Your task to perform on an android device: Add "razer deathadder" to the cart on target.com Image 0: 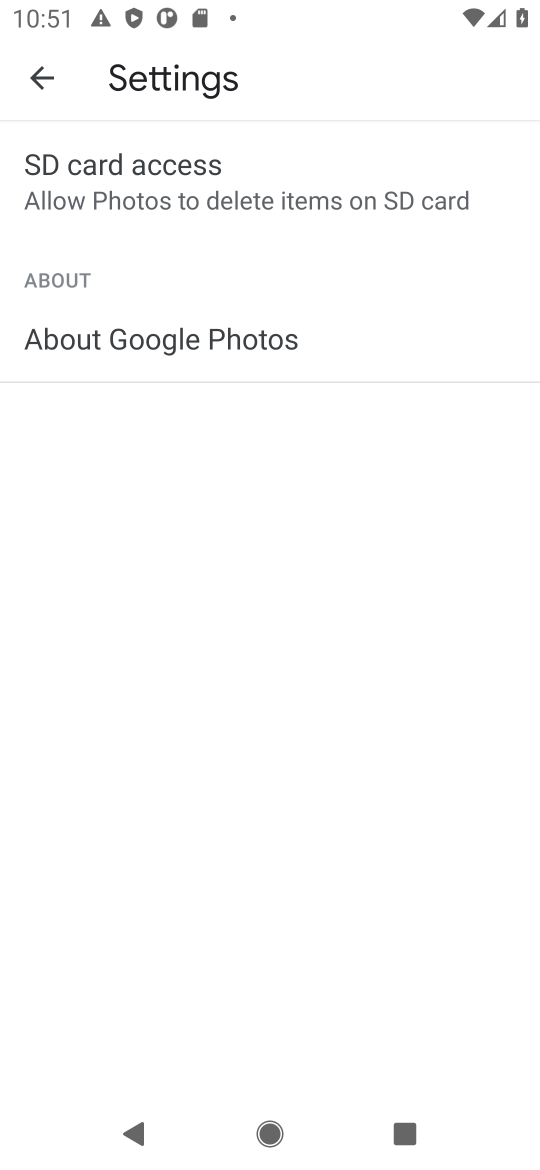
Step 0: press home button
Your task to perform on an android device: Add "razer deathadder" to the cart on target.com Image 1: 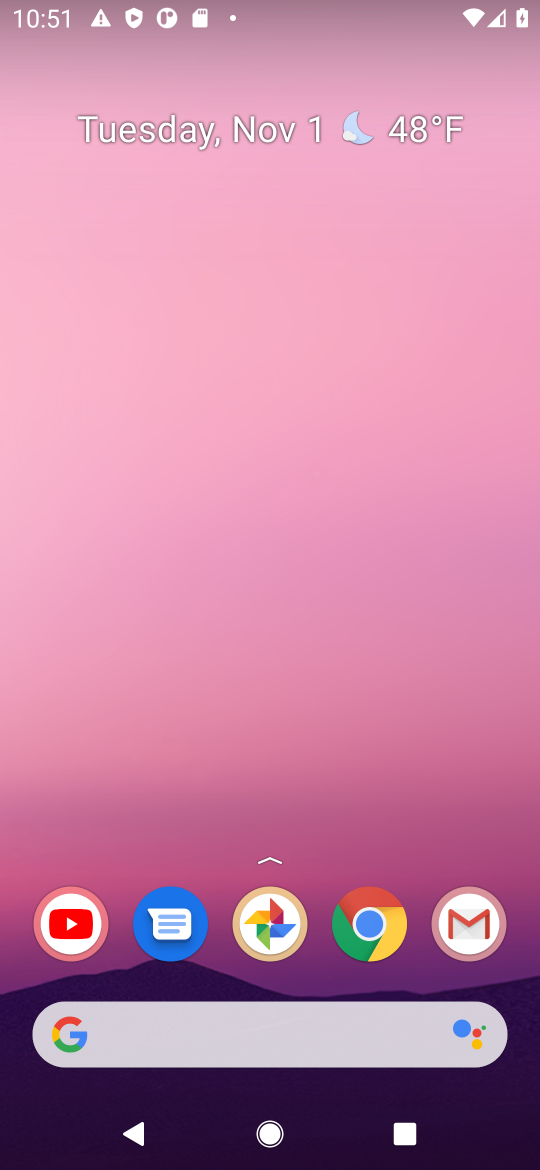
Step 1: click (367, 927)
Your task to perform on an android device: Add "razer deathadder" to the cart on target.com Image 2: 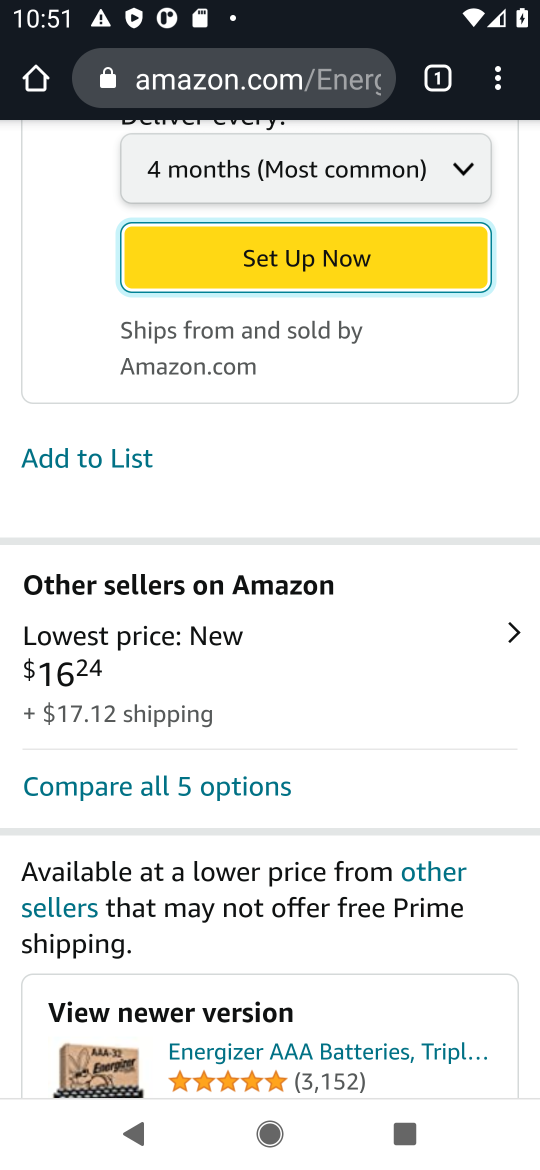
Step 2: click (221, 86)
Your task to perform on an android device: Add "razer deathadder" to the cart on target.com Image 3: 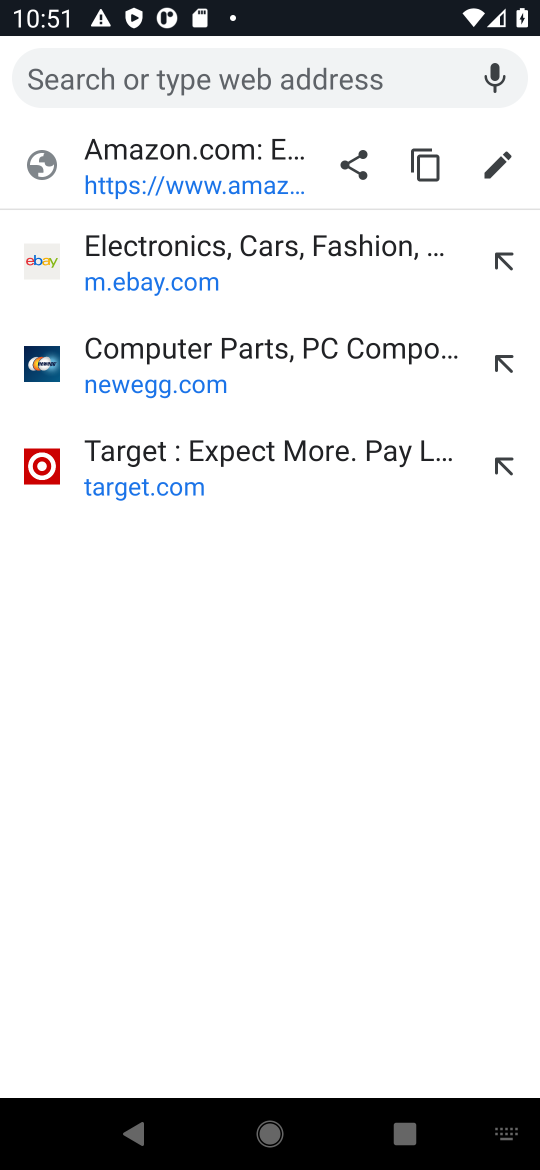
Step 3: type "target.com"
Your task to perform on an android device: Add "razer deathadder" to the cart on target.com Image 4: 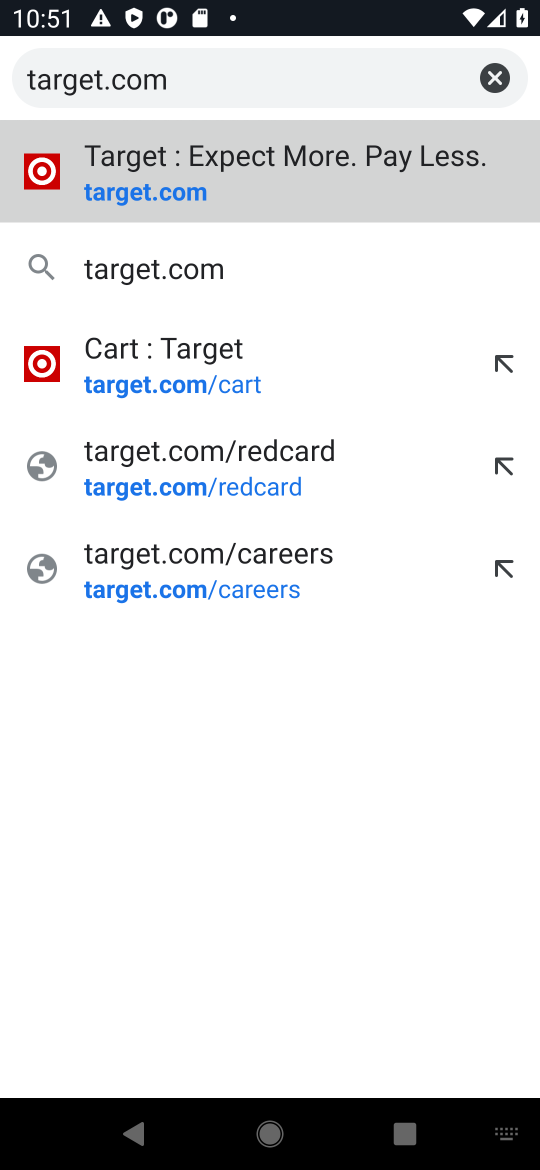
Step 4: click (259, 203)
Your task to perform on an android device: Add "razer deathadder" to the cart on target.com Image 5: 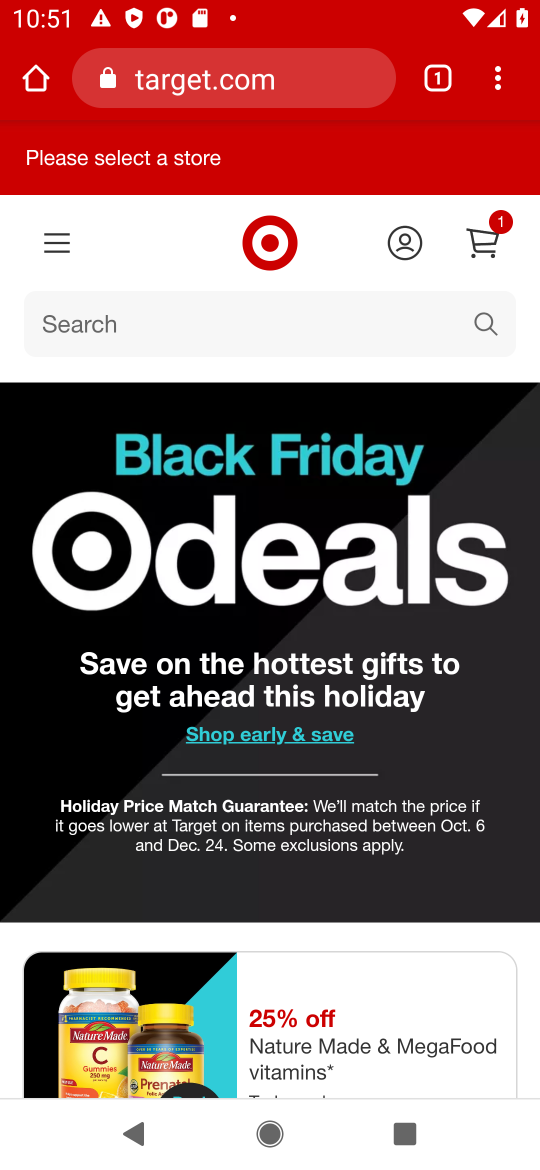
Step 5: click (205, 324)
Your task to perform on an android device: Add "razer deathadder" to the cart on target.com Image 6: 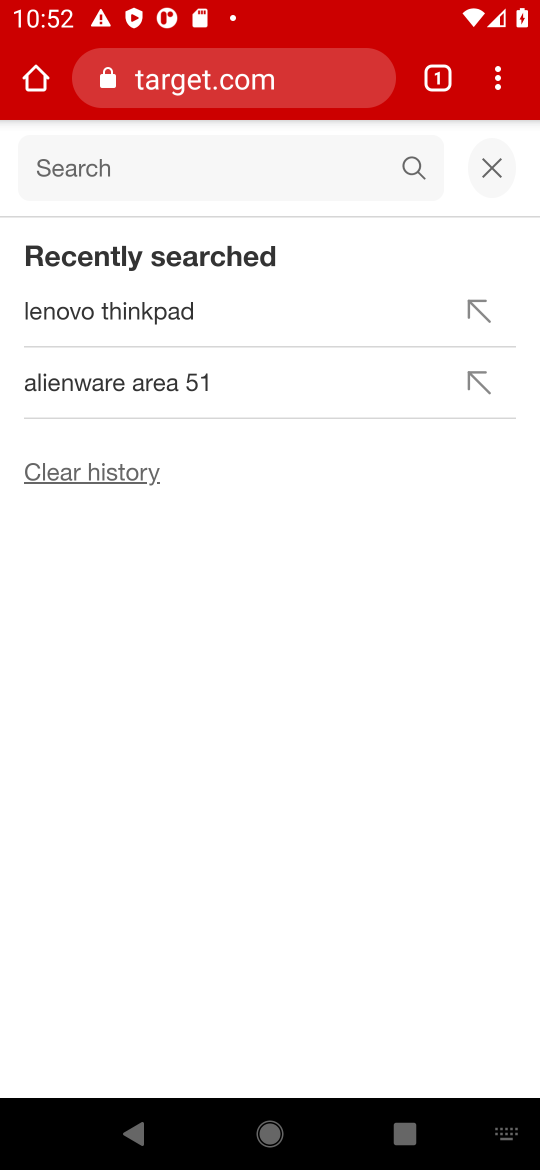
Step 6: type "razer deathadder"
Your task to perform on an android device: Add "razer deathadder" to the cart on target.com Image 7: 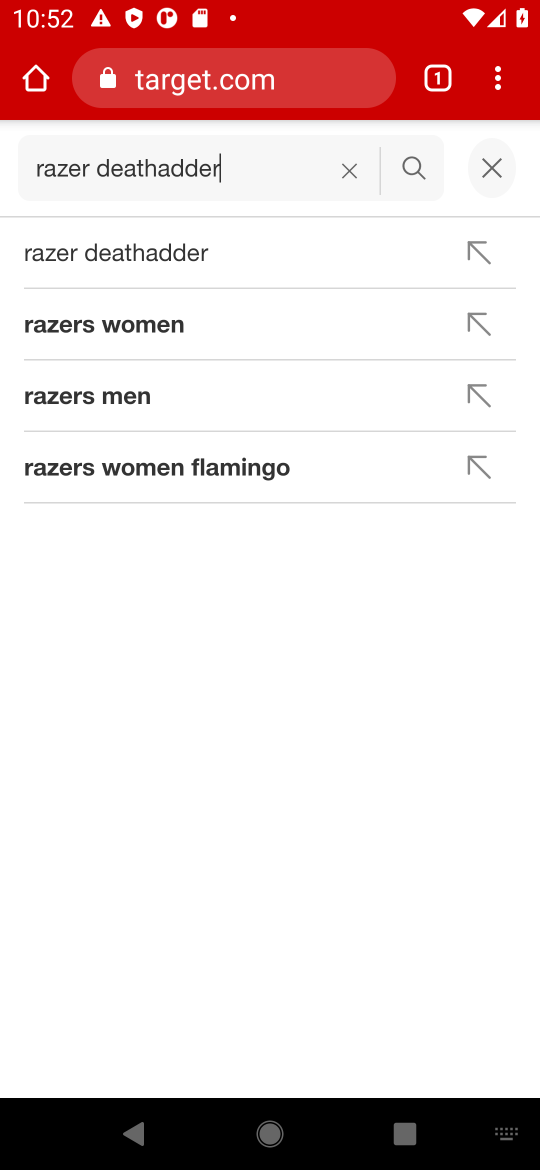
Step 7: type "]"
Your task to perform on an android device: Add "razer deathadder" to the cart on target.com Image 8: 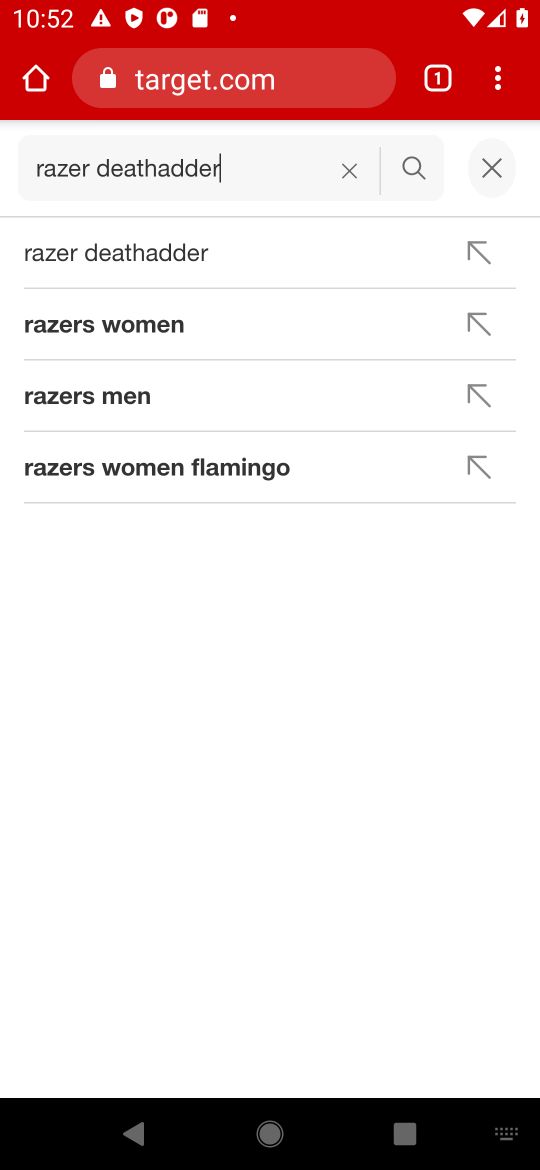
Step 8: click (419, 168)
Your task to perform on an android device: Add "razer deathadder" to the cart on target.com Image 9: 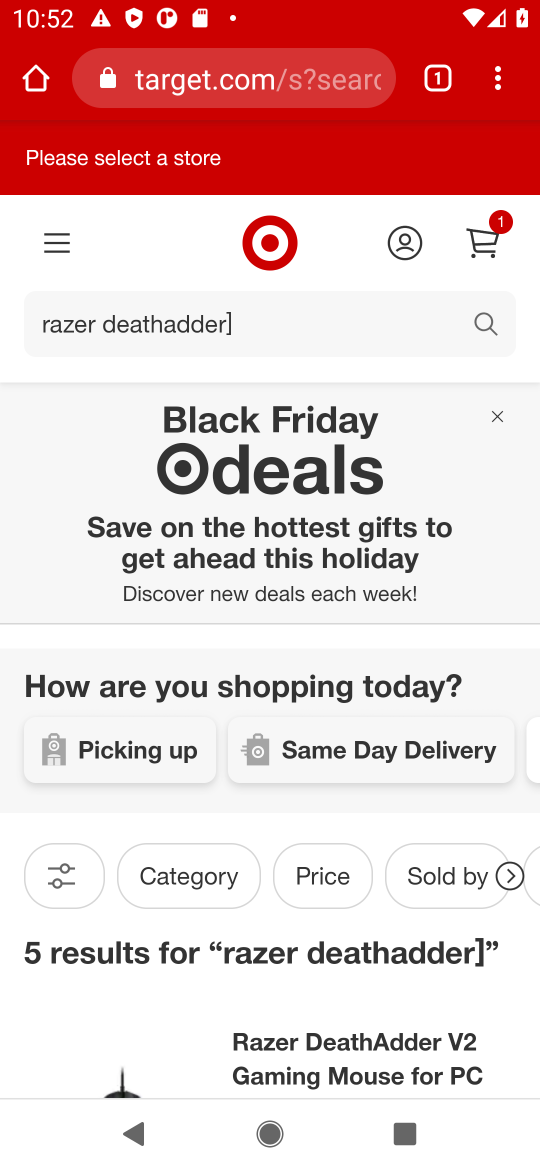
Step 9: drag from (157, 829) to (145, 192)
Your task to perform on an android device: Add "razer deathadder" to the cart on target.com Image 10: 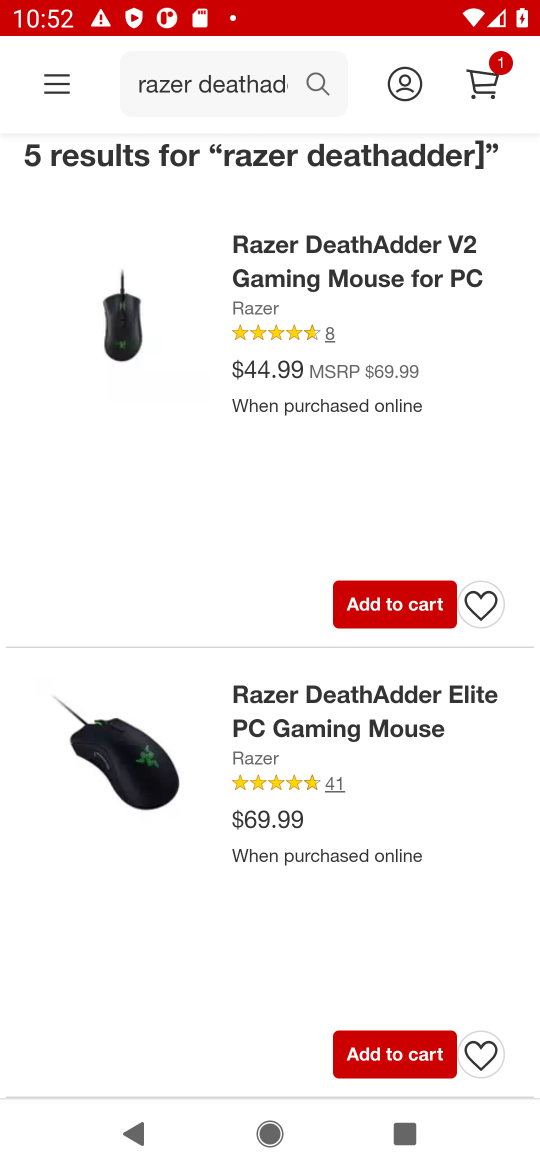
Step 10: click (389, 610)
Your task to perform on an android device: Add "razer deathadder" to the cart on target.com Image 11: 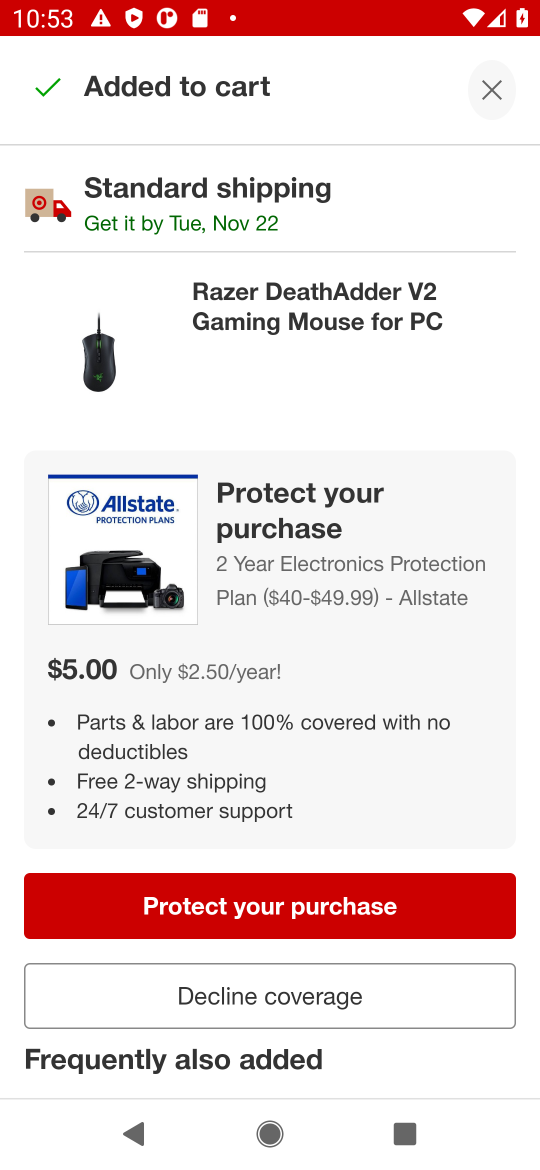
Step 11: task complete